Your task to perform on an android device: Open Yahoo.com Image 0: 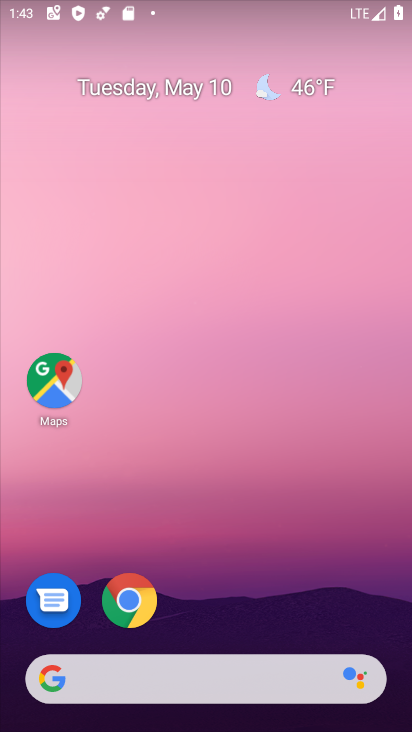
Step 0: click (146, 605)
Your task to perform on an android device: Open Yahoo.com Image 1: 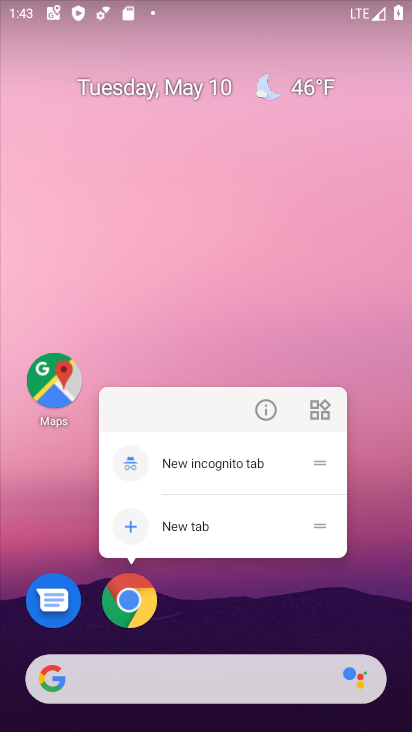
Step 1: click (123, 616)
Your task to perform on an android device: Open Yahoo.com Image 2: 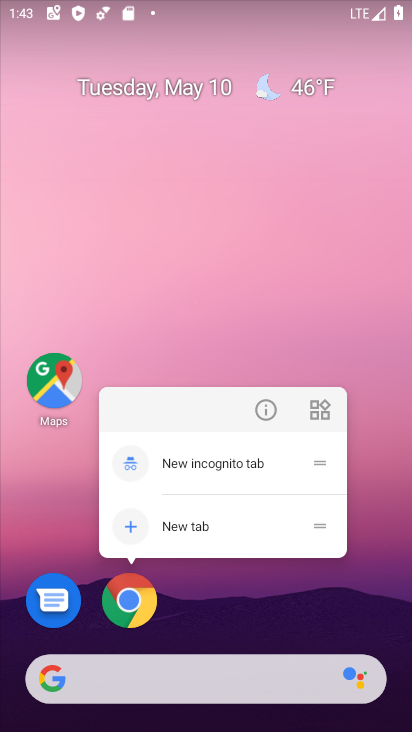
Step 2: click (121, 603)
Your task to perform on an android device: Open Yahoo.com Image 3: 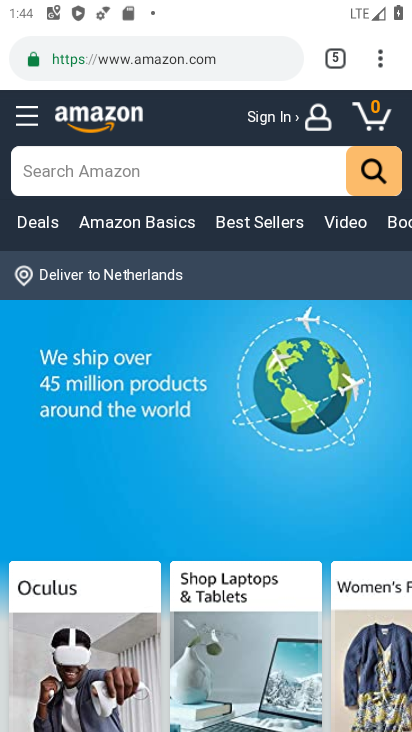
Step 3: drag from (381, 69) to (309, 110)
Your task to perform on an android device: Open Yahoo.com Image 4: 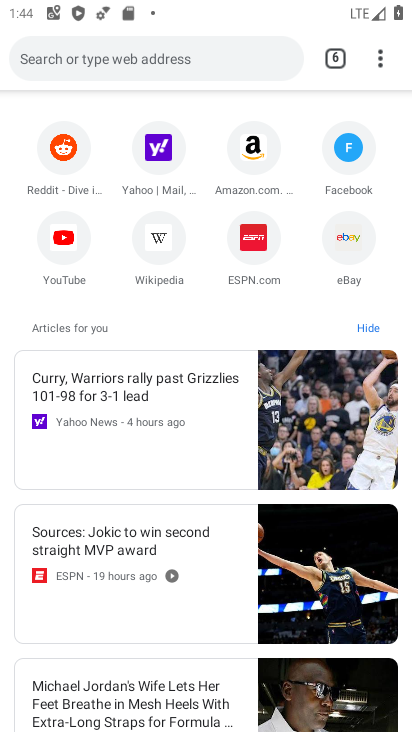
Step 4: click (163, 148)
Your task to perform on an android device: Open Yahoo.com Image 5: 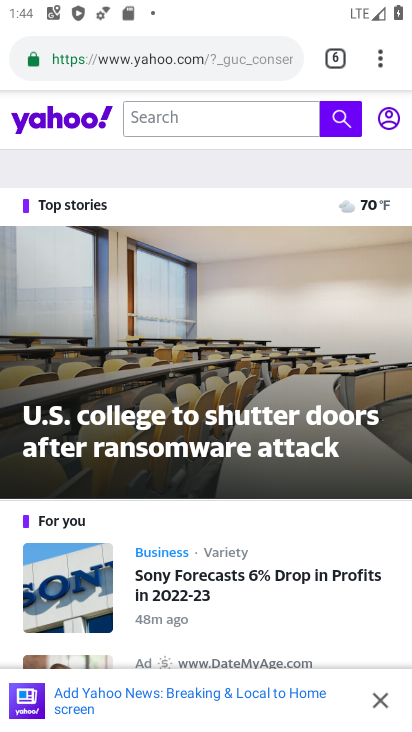
Step 5: task complete